Your task to perform on an android device: See recent photos Image 0: 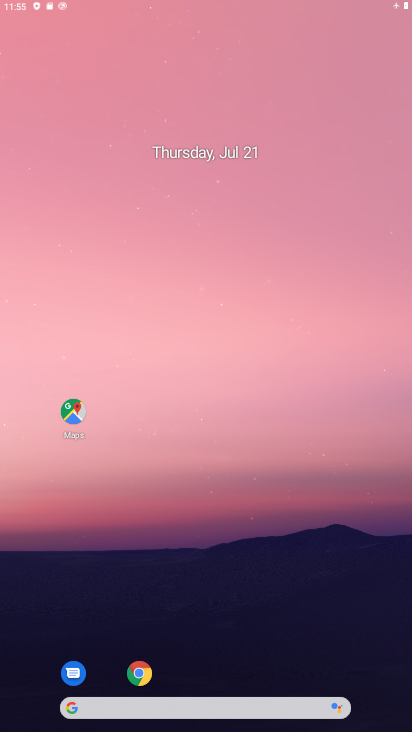
Step 0: click (334, 20)
Your task to perform on an android device: See recent photos Image 1: 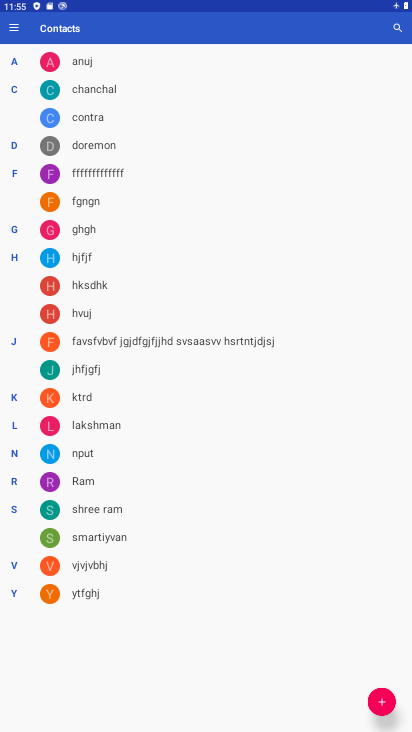
Step 1: drag from (219, 623) to (388, 263)
Your task to perform on an android device: See recent photos Image 2: 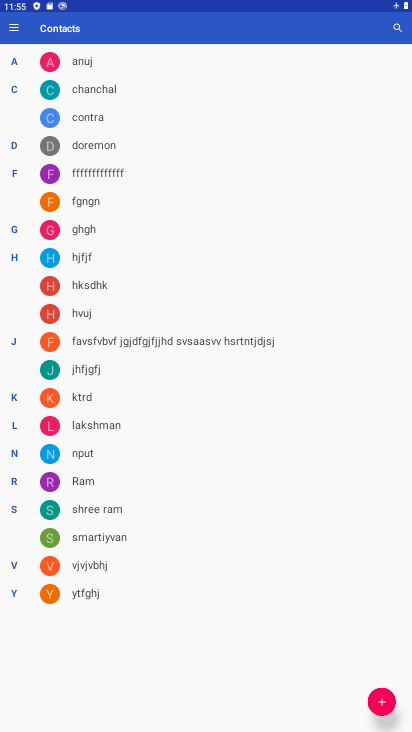
Step 2: press home button
Your task to perform on an android device: See recent photos Image 3: 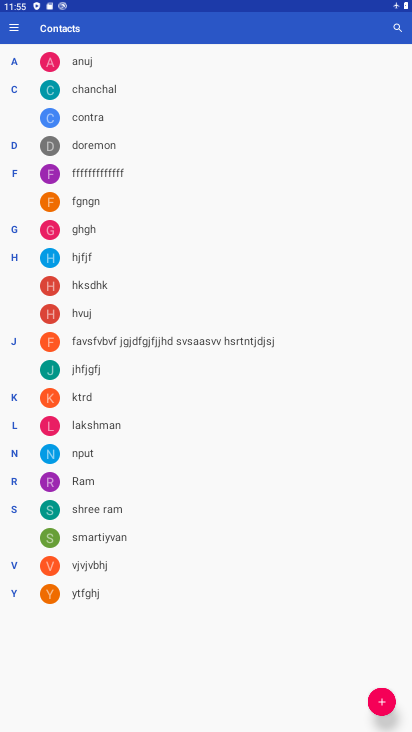
Step 3: press home button
Your task to perform on an android device: See recent photos Image 4: 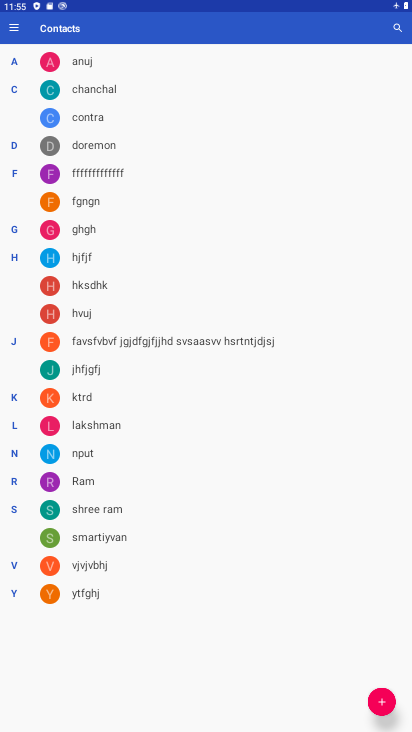
Step 4: click (257, 16)
Your task to perform on an android device: See recent photos Image 5: 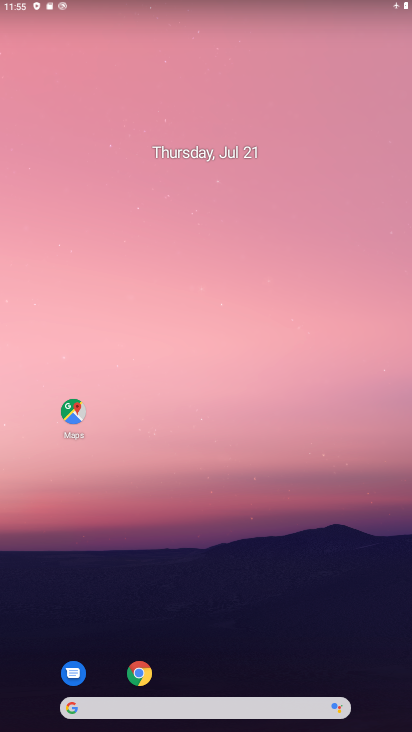
Step 5: drag from (234, 619) to (309, 19)
Your task to perform on an android device: See recent photos Image 6: 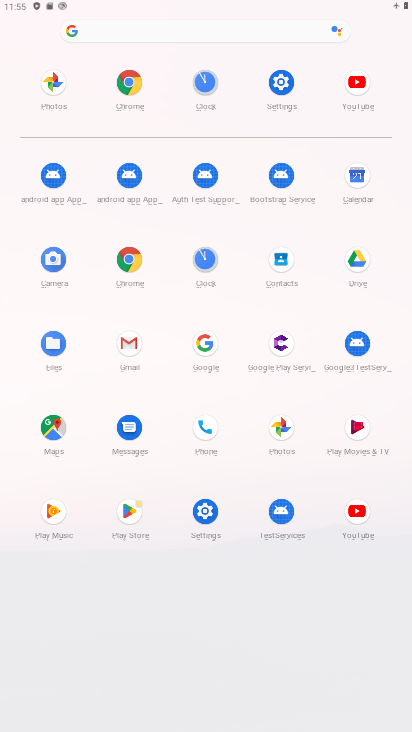
Step 6: click (282, 425)
Your task to perform on an android device: See recent photos Image 7: 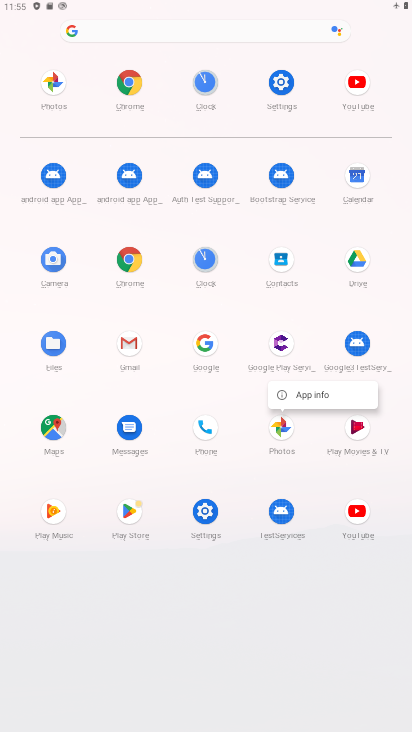
Step 7: click (333, 397)
Your task to perform on an android device: See recent photos Image 8: 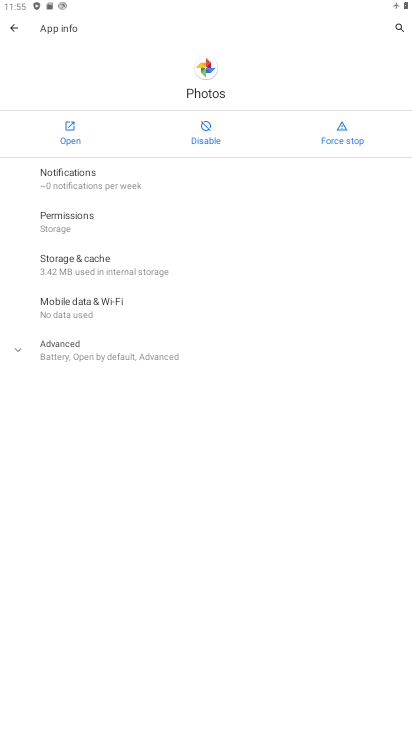
Step 8: click (70, 124)
Your task to perform on an android device: See recent photos Image 9: 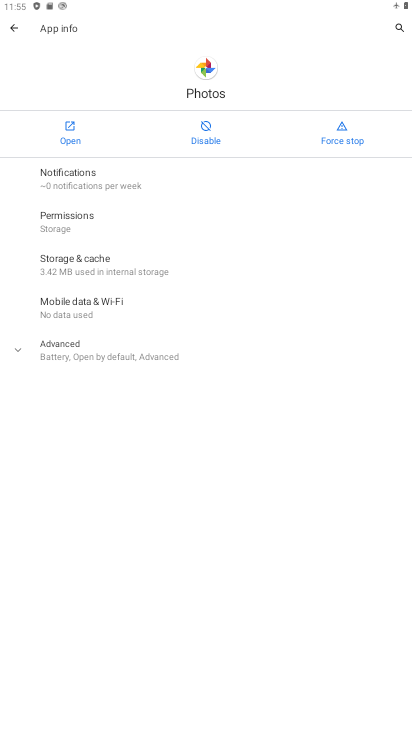
Step 9: click (70, 124)
Your task to perform on an android device: See recent photos Image 10: 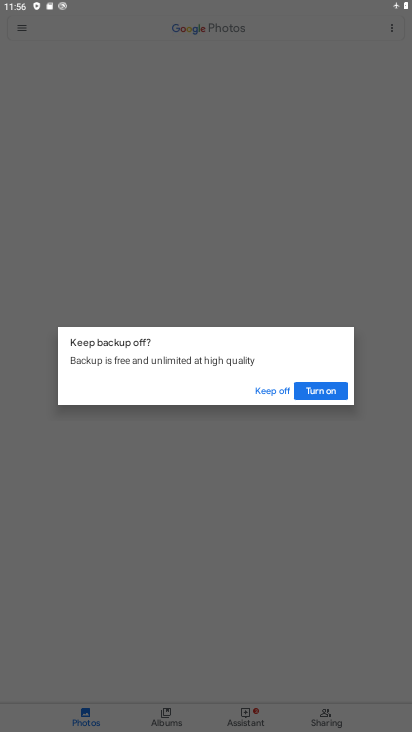
Step 10: drag from (225, 561) to (258, 363)
Your task to perform on an android device: See recent photos Image 11: 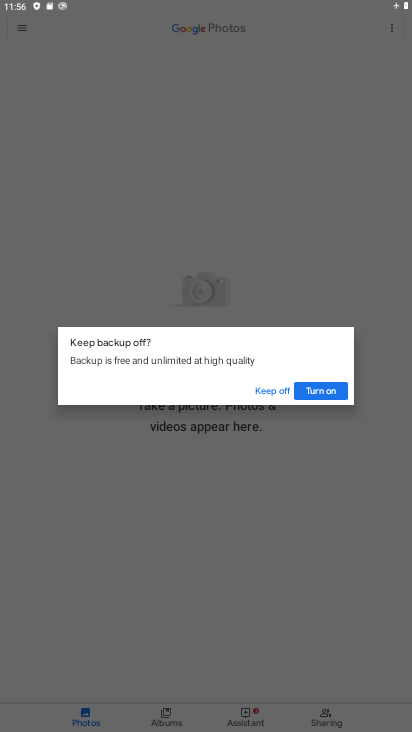
Step 11: click (303, 396)
Your task to perform on an android device: See recent photos Image 12: 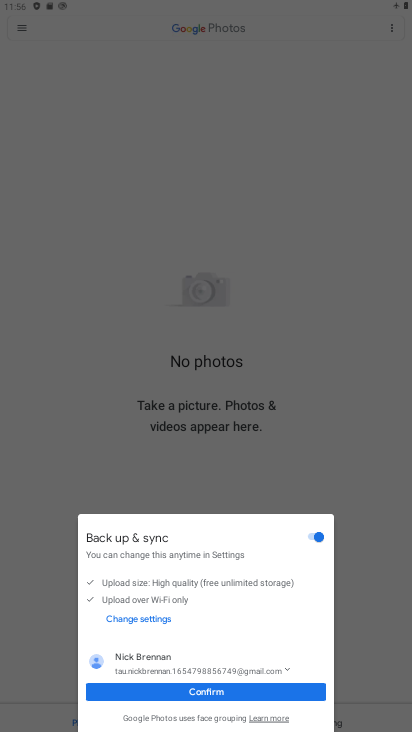
Step 12: click (179, 685)
Your task to perform on an android device: See recent photos Image 13: 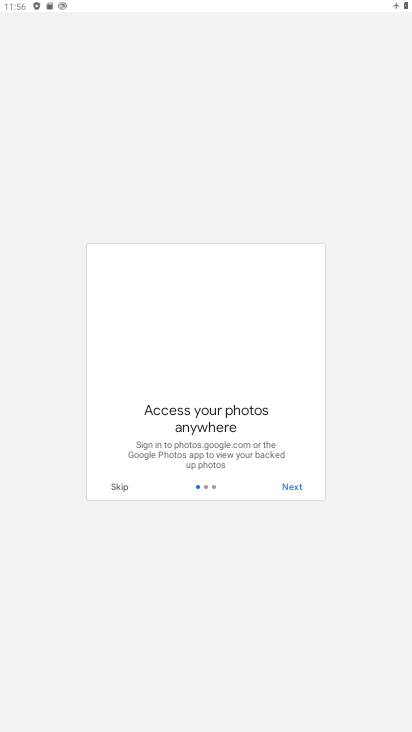
Step 13: task complete